Your task to perform on an android device: What's the weather going to be tomorrow? Image 0: 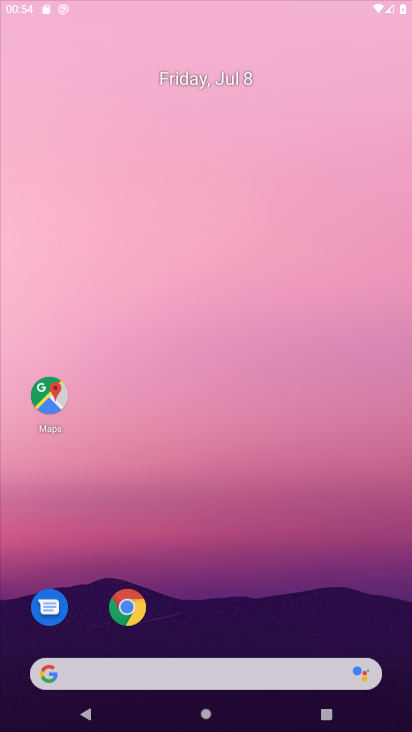
Step 0: press home button
Your task to perform on an android device: What's the weather going to be tomorrow? Image 1: 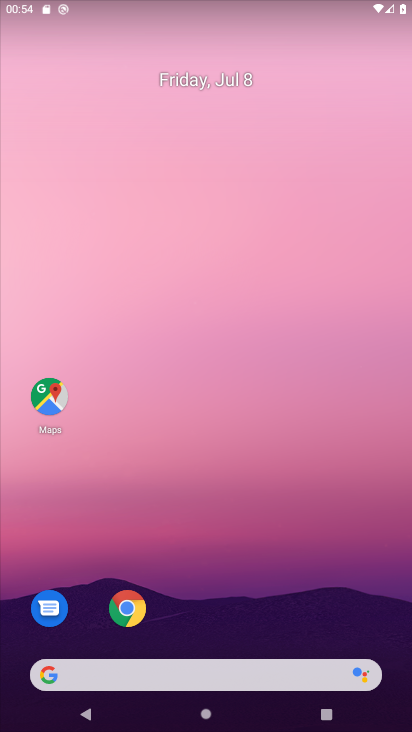
Step 1: drag from (194, 630) to (226, 388)
Your task to perform on an android device: What's the weather going to be tomorrow? Image 2: 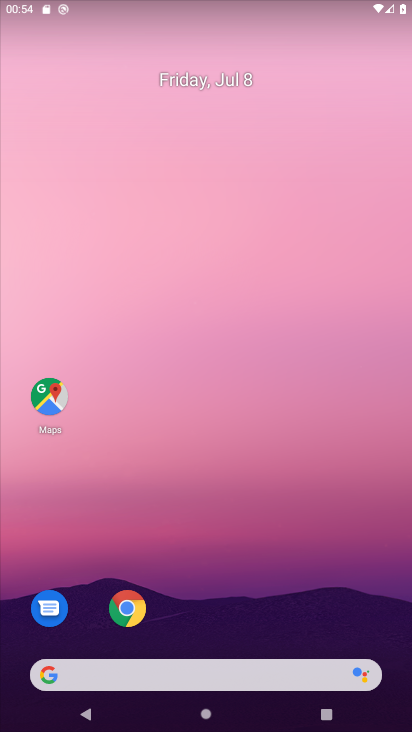
Step 2: drag from (300, 487) to (294, 152)
Your task to perform on an android device: What's the weather going to be tomorrow? Image 3: 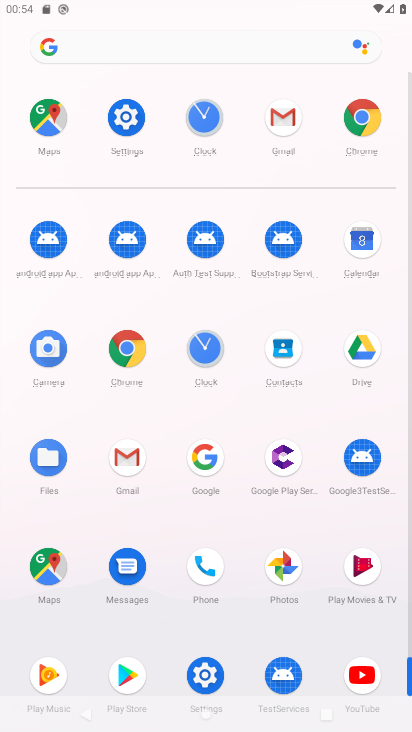
Step 3: click (139, 342)
Your task to perform on an android device: What's the weather going to be tomorrow? Image 4: 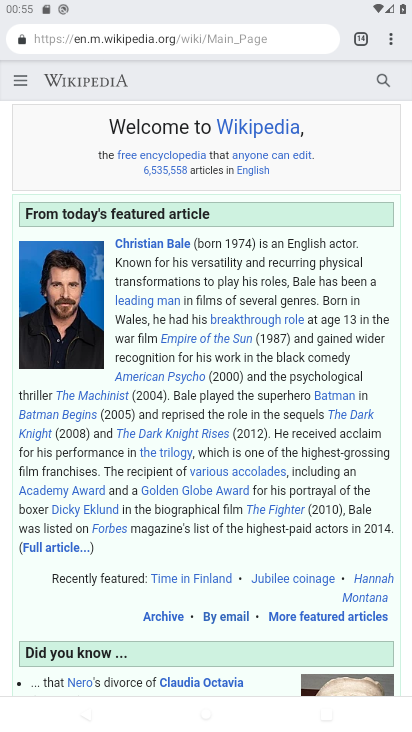
Step 4: click (389, 37)
Your task to perform on an android device: What's the weather going to be tomorrow? Image 5: 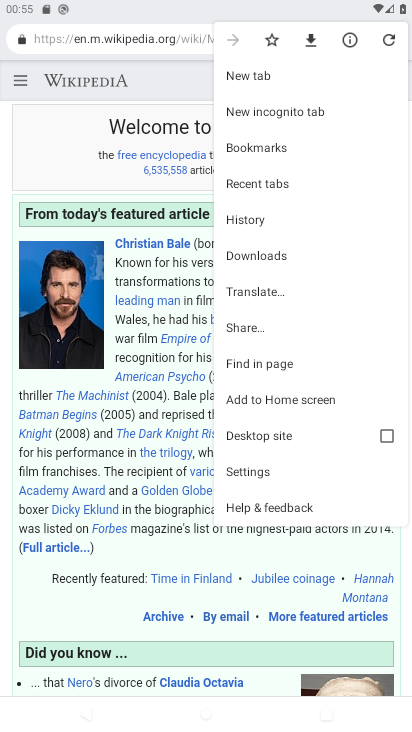
Step 5: click (292, 88)
Your task to perform on an android device: What's the weather going to be tomorrow? Image 6: 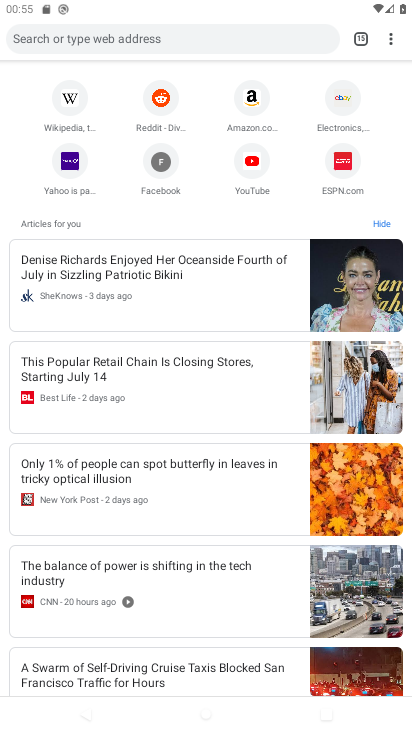
Step 6: click (194, 33)
Your task to perform on an android device: What's the weather going to be tomorrow? Image 7: 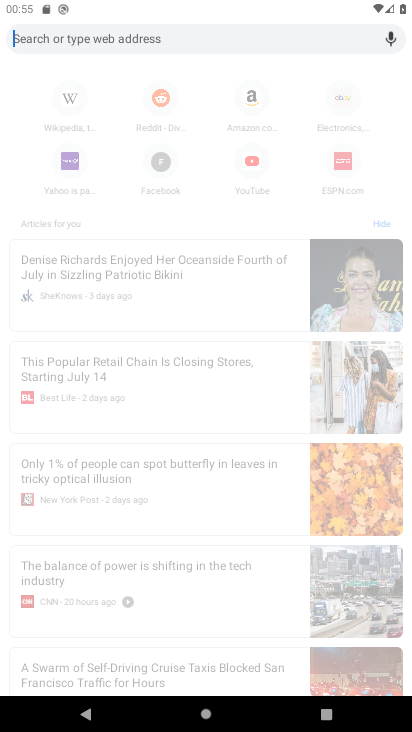
Step 7: type "What's the weather going to be tomorrow "
Your task to perform on an android device: What's the weather going to be tomorrow? Image 8: 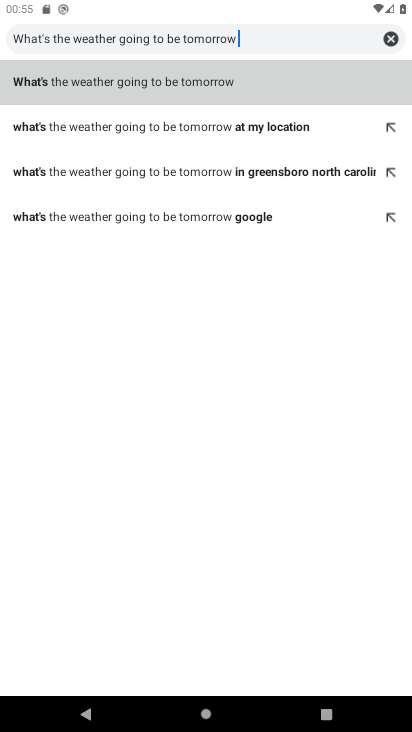
Step 8: click (147, 69)
Your task to perform on an android device: What's the weather going to be tomorrow? Image 9: 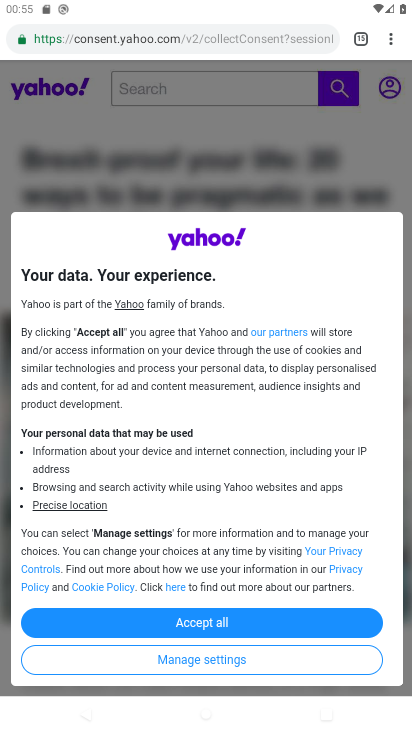
Step 9: task complete